Your task to perform on an android device: find snoozed emails in the gmail app Image 0: 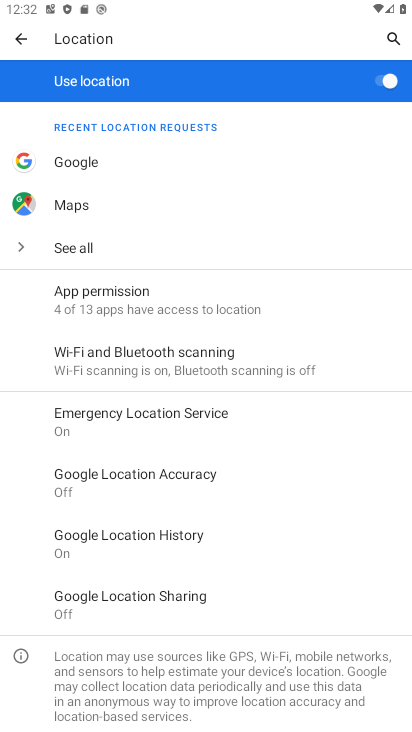
Step 0: press home button
Your task to perform on an android device: find snoozed emails in the gmail app Image 1: 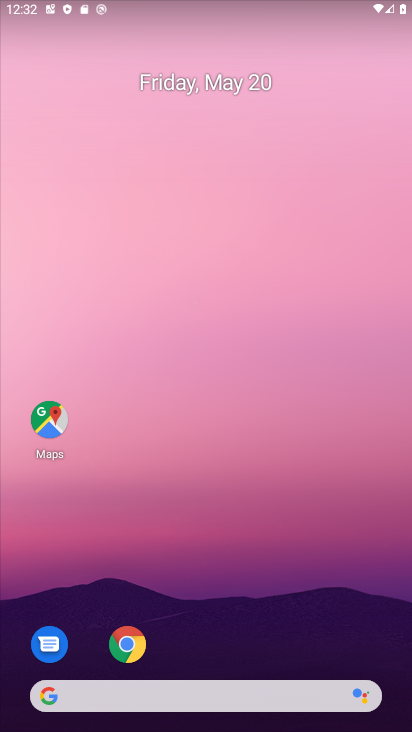
Step 1: drag from (320, 667) to (240, 35)
Your task to perform on an android device: find snoozed emails in the gmail app Image 2: 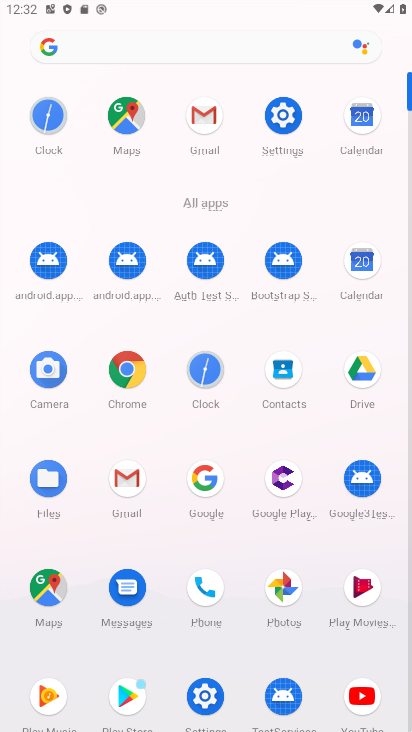
Step 2: click (195, 108)
Your task to perform on an android device: find snoozed emails in the gmail app Image 3: 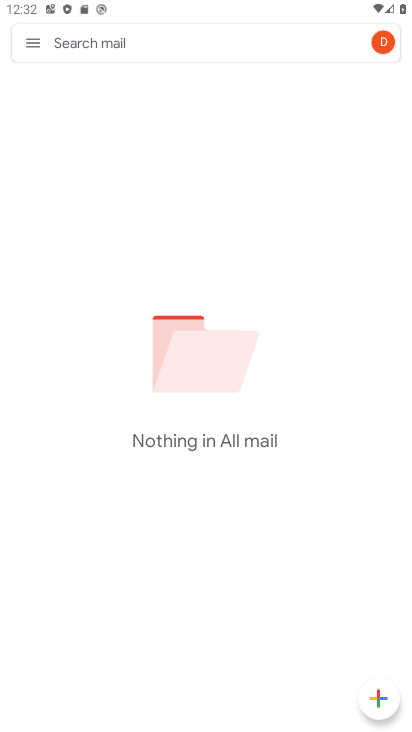
Step 3: click (37, 39)
Your task to perform on an android device: find snoozed emails in the gmail app Image 4: 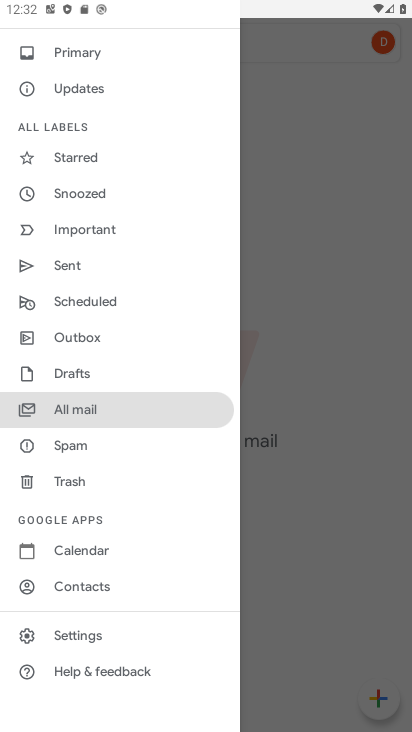
Step 4: click (76, 200)
Your task to perform on an android device: find snoozed emails in the gmail app Image 5: 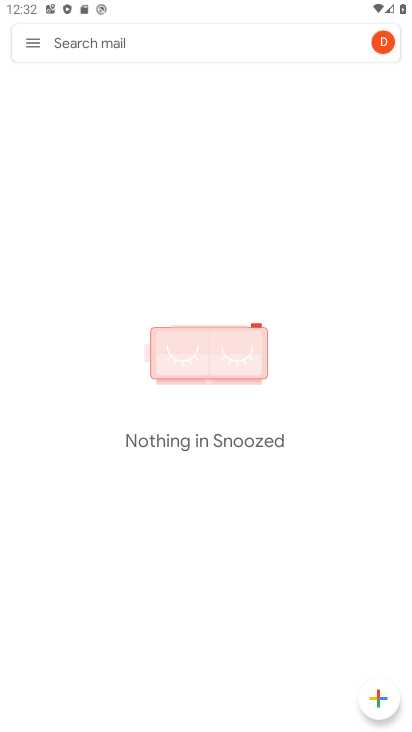
Step 5: task complete